Your task to perform on an android device: turn smart compose on in the gmail app Image 0: 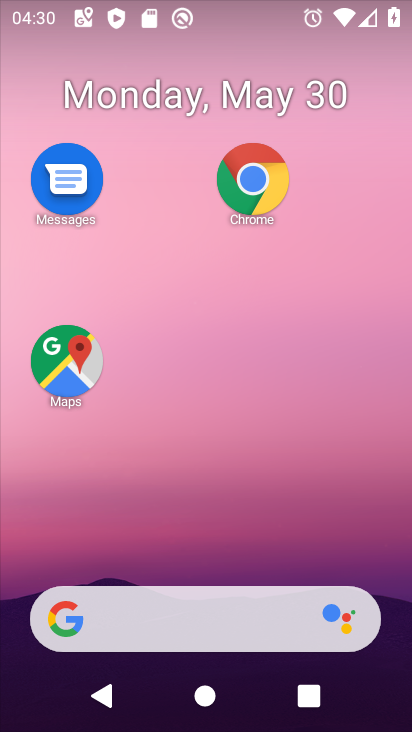
Step 0: drag from (186, 507) to (244, 19)
Your task to perform on an android device: turn smart compose on in the gmail app Image 1: 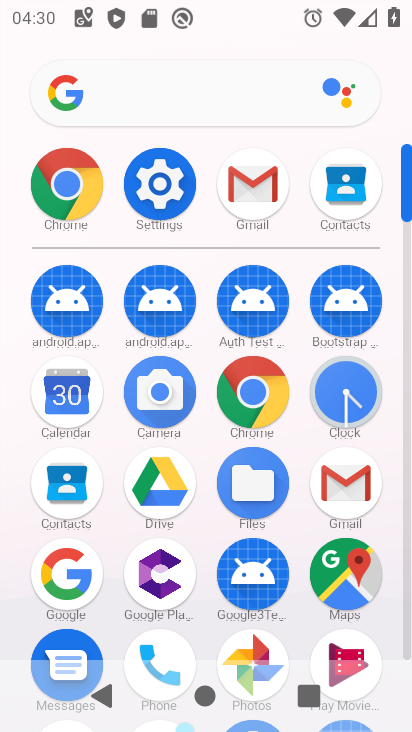
Step 1: click (350, 491)
Your task to perform on an android device: turn smart compose on in the gmail app Image 2: 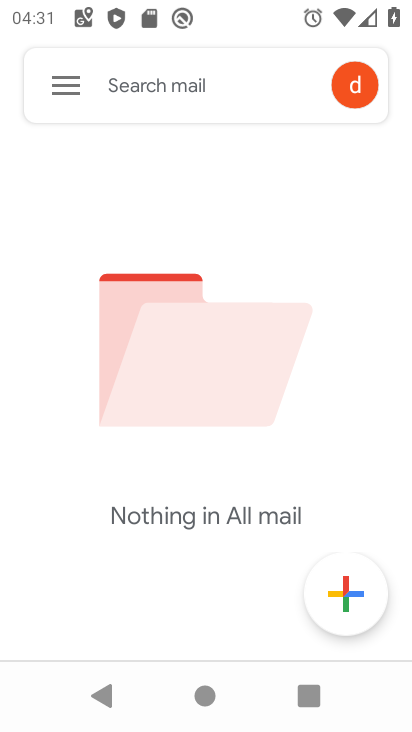
Step 2: click (58, 83)
Your task to perform on an android device: turn smart compose on in the gmail app Image 3: 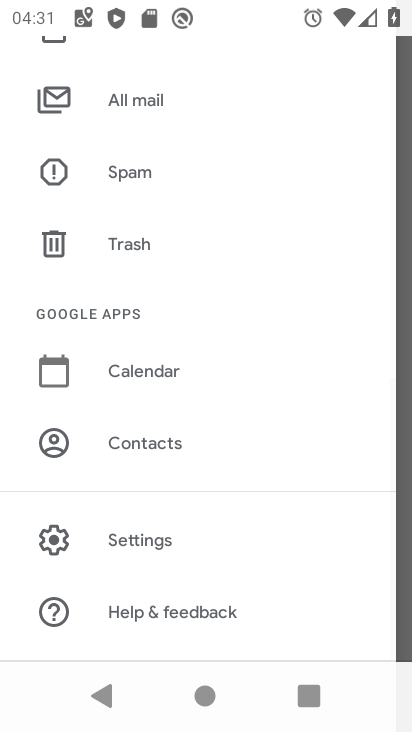
Step 3: click (110, 535)
Your task to perform on an android device: turn smart compose on in the gmail app Image 4: 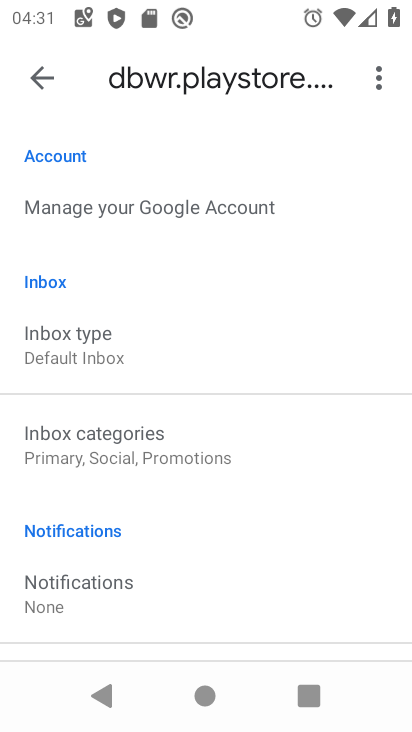
Step 4: click (147, 106)
Your task to perform on an android device: turn smart compose on in the gmail app Image 5: 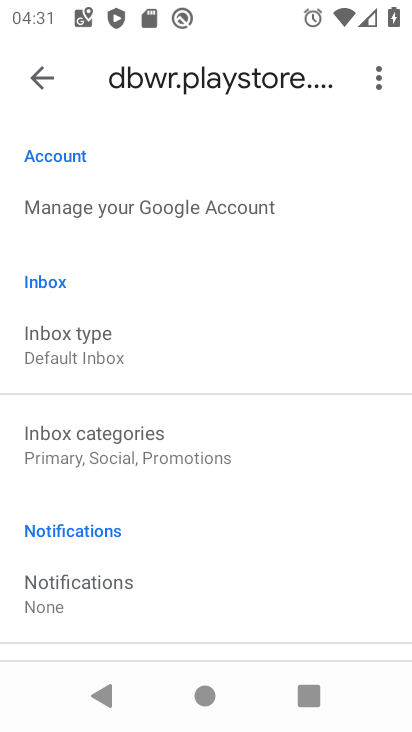
Step 5: drag from (94, 593) to (144, 197)
Your task to perform on an android device: turn smart compose on in the gmail app Image 6: 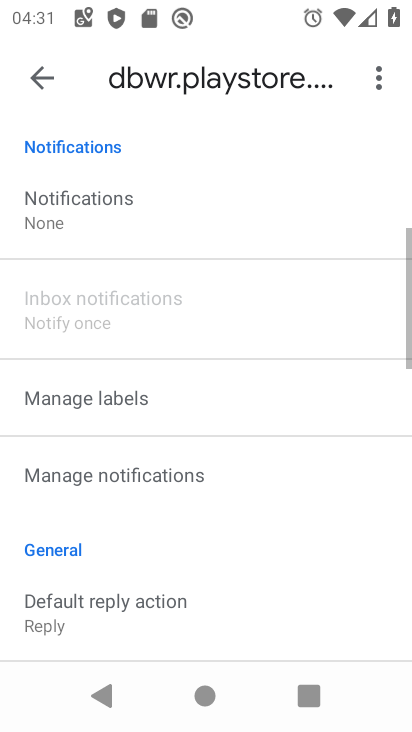
Step 6: drag from (165, 586) to (166, 83)
Your task to perform on an android device: turn smart compose on in the gmail app Image 7: 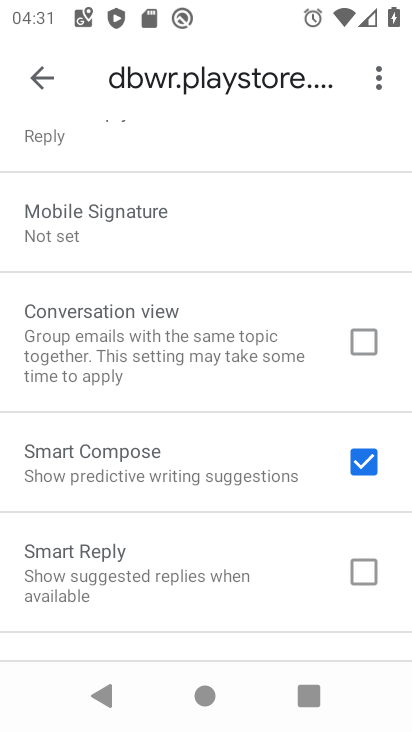
Step 7: drag from (129, 617) to (156, 172)
Your task to perform on an android device: turn smart compose on in the gmail app Image 8: 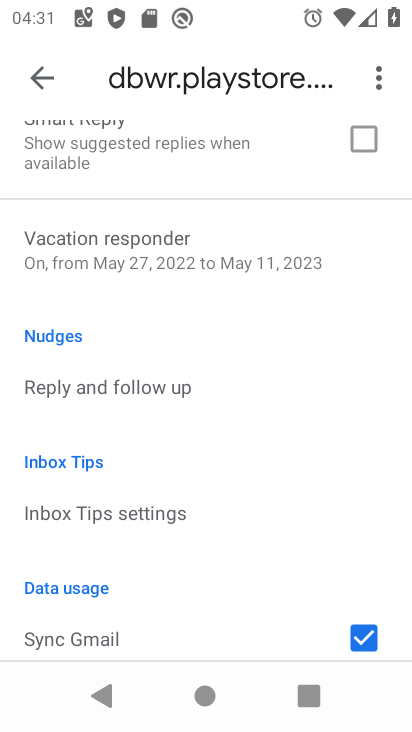
Step 8: click (249, 264)
Your task to perform on an android device: turn smart compose on in the gmail app Image 9: 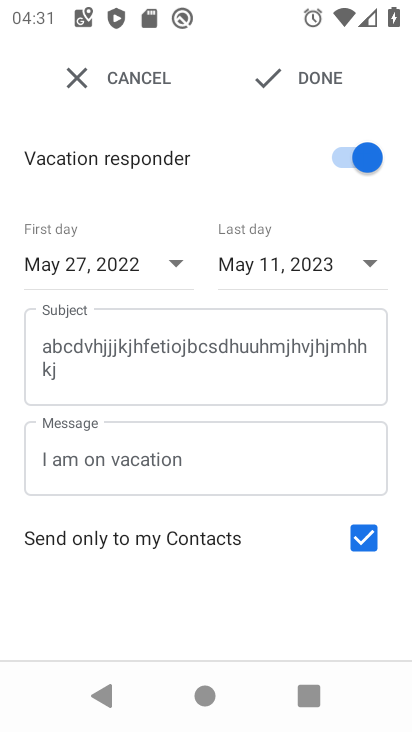
Step 9: task complete